Your task to perform on an android device: open a new tab in the chrome app Image 0: 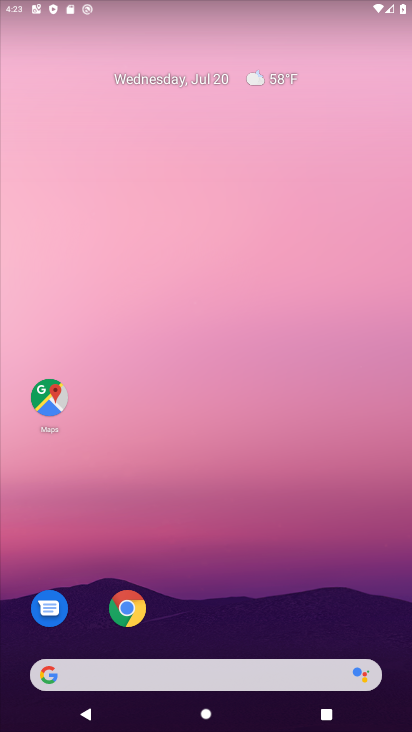
Step 0: drag from (205, 643) to (44, 0)
Your task to perform on an android device: open a new tab in the chrome app Image 1: 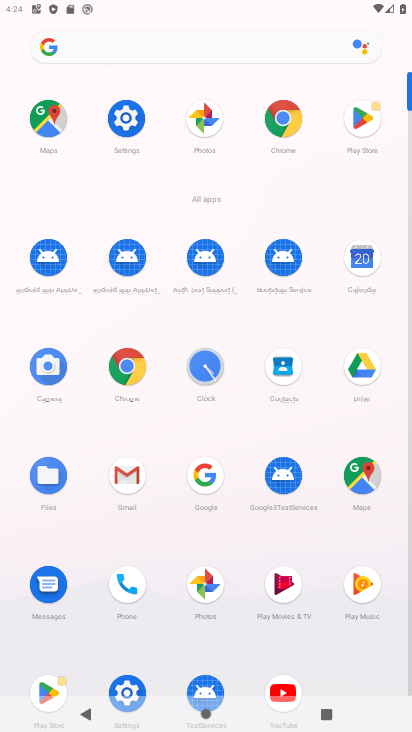
Step 1: click (126, 369)
Your task to perform on an android device: open a new tab in the chrome app Image 2: 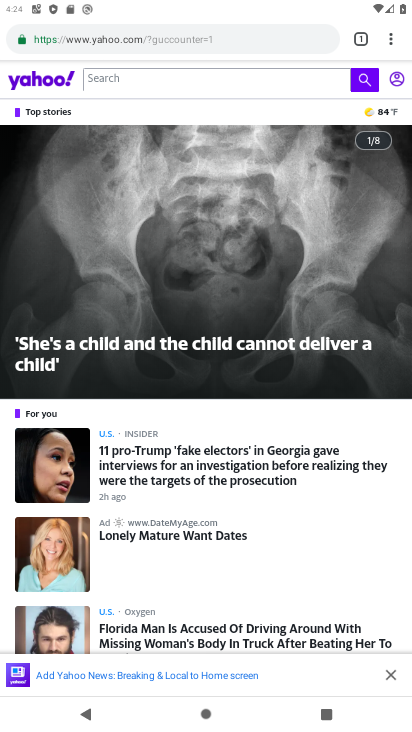
Step 2: click (364, 39)
Your task to perform on an android device: open a new tab in the chrome app Image 3: 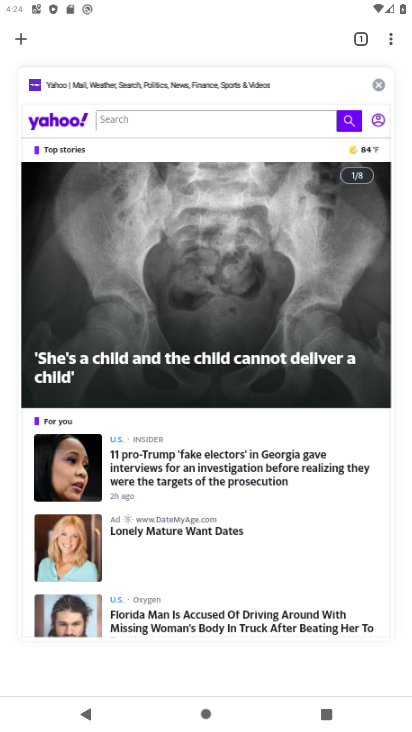
Step 3: click (25, 34)
Your task to perform on an android device: open a new tab in the chrome app Image 4: 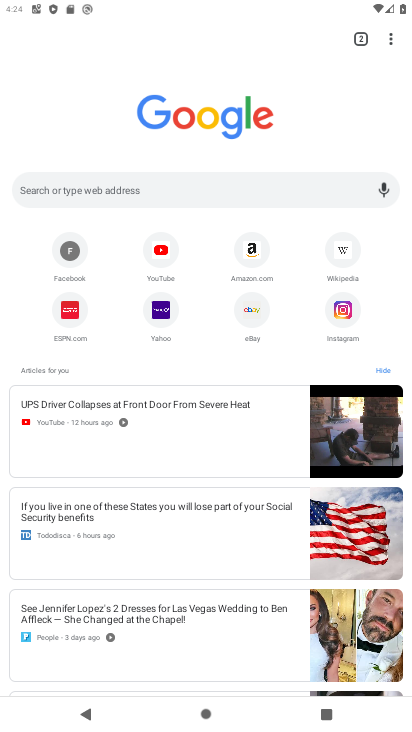
Step 4: task complete